Your task to perform on an android device: Open sound settings Image 0: 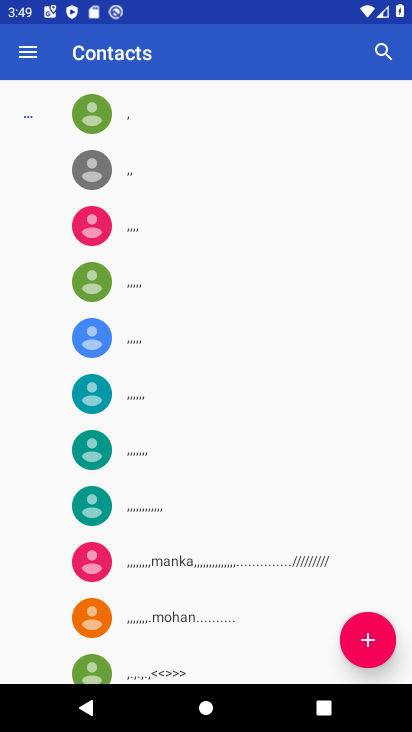
Step 0: press home button
Your task to perform on an android device: Open sound settings Image 1: 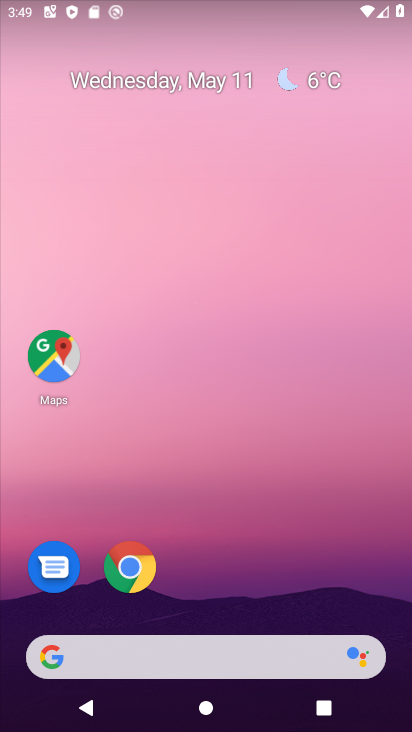
Step 1: drag from (255, 597) to (262, 242)
Your task to perform on an android device: Open sound settings Image 2: 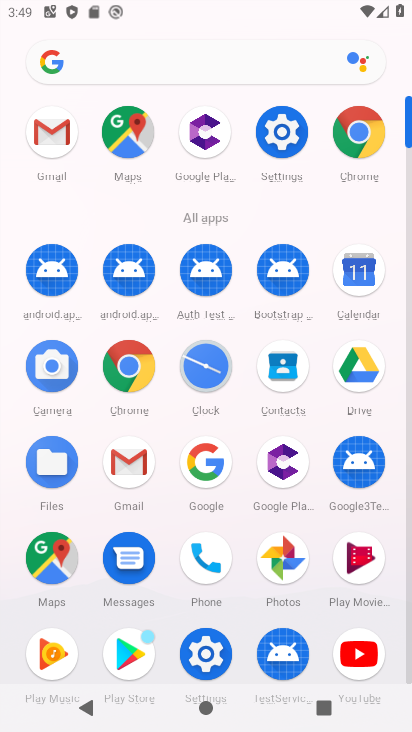
Step 2: click (279, 120)
Your task to perform on an android device: Open sound settings Image 3: 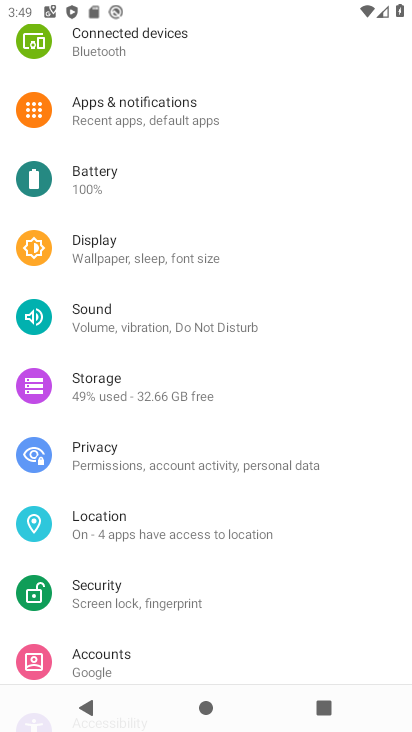
Step 3: click (134, 331)
Your task to perform on an android device: Open sound settings Image 4: 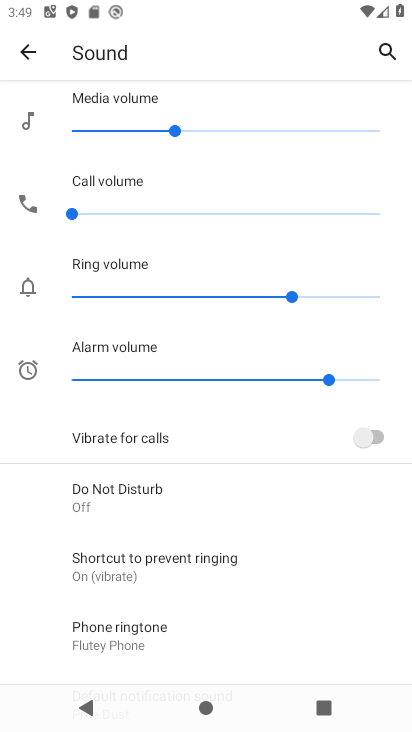
Step 4: task complete